Your task to perform on an android device: Open notification settings Image 0: 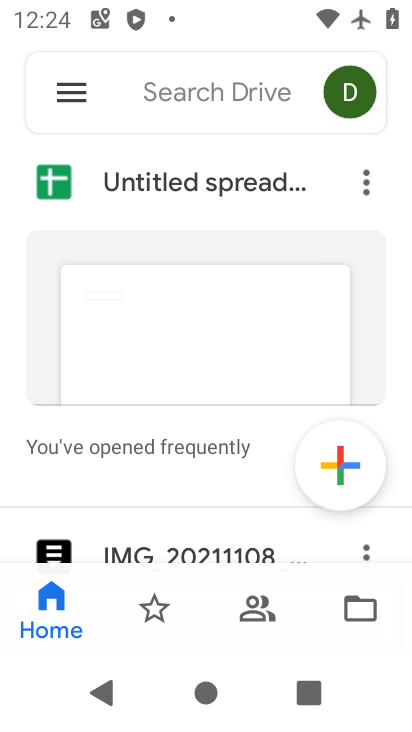
Step 0: press home button
Your task to perform on an android device: Open notification settings Image 1: 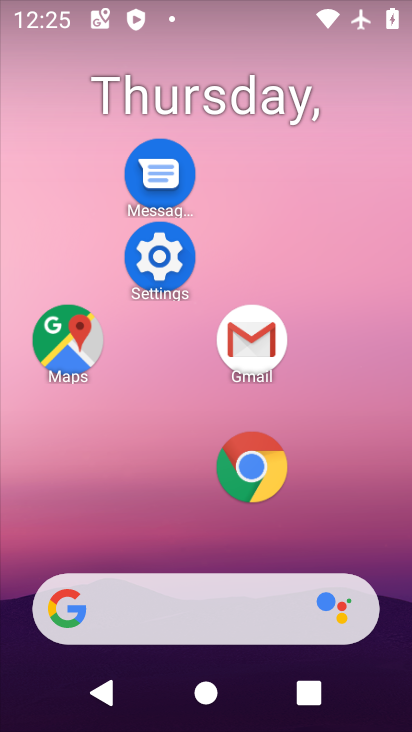
Step 1: click (158, 264)
Your task to perform on an android device: Open notification settings Image 2: 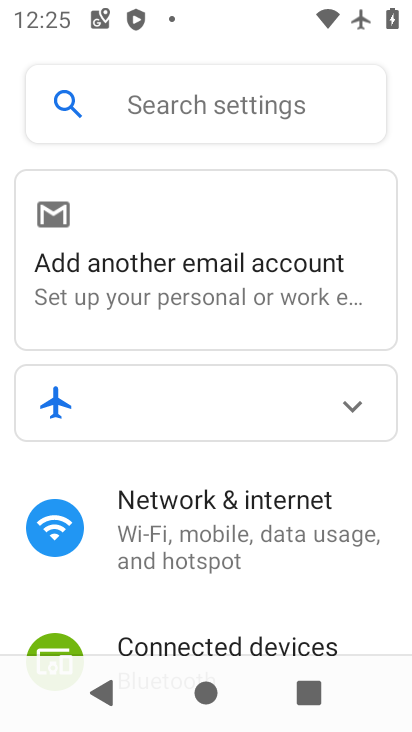
Step 2: drag from (226, 571) to (285, 181)
Your task to perform on an android device: Open notification settings Image 3: 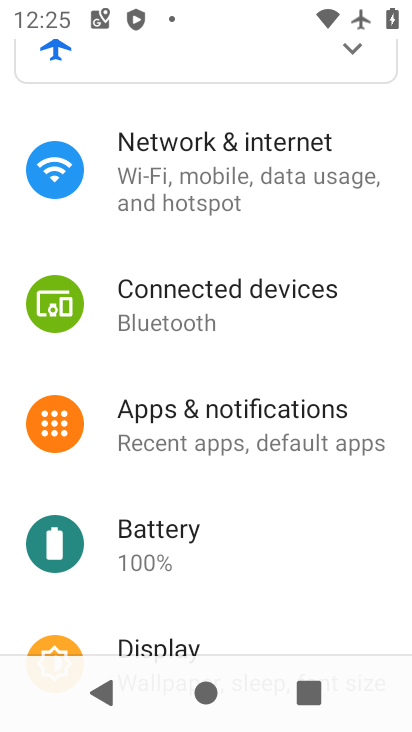
Step 3: click (229, 432)
Your task to perform on an android device: Open notification settings Image 4: 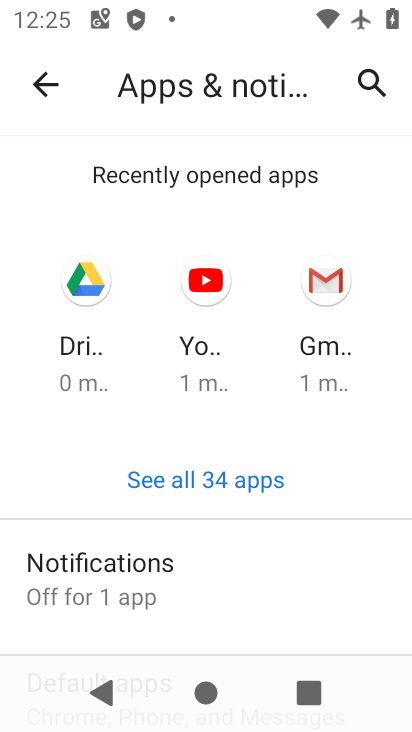
Step 4: drag from (147, 568) to (256, 218)
Your task to perform on an android device: Open notification settings Image 5: 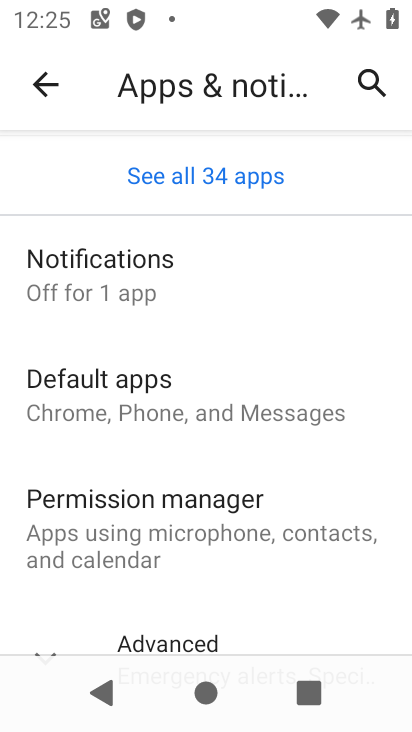
Step 5: click (131, 508)
Your task to perform on an android device: Open notification settings Image 6: 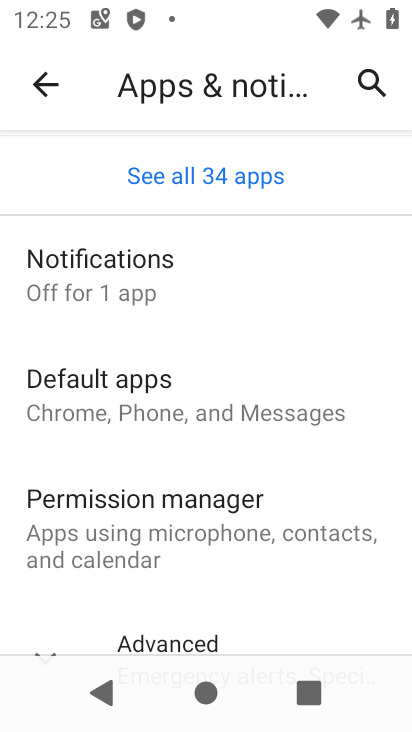
Step 6: click (131, 508)
Your task to perform on an android device: Open notification settings Image 7: 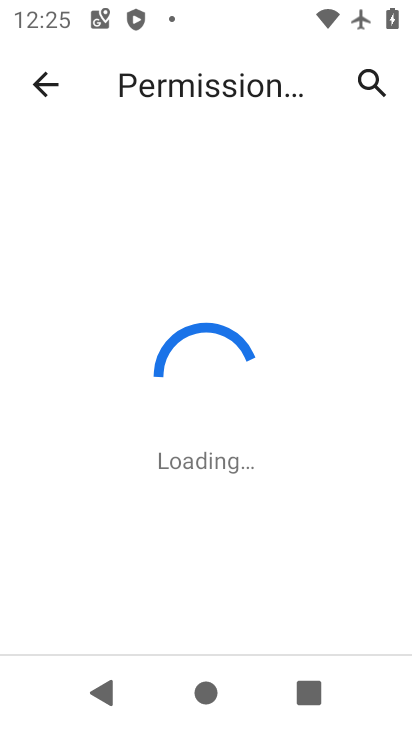
Step 7: task complete